Your task to perform on an android device: open chrome privacy settings Image 0: 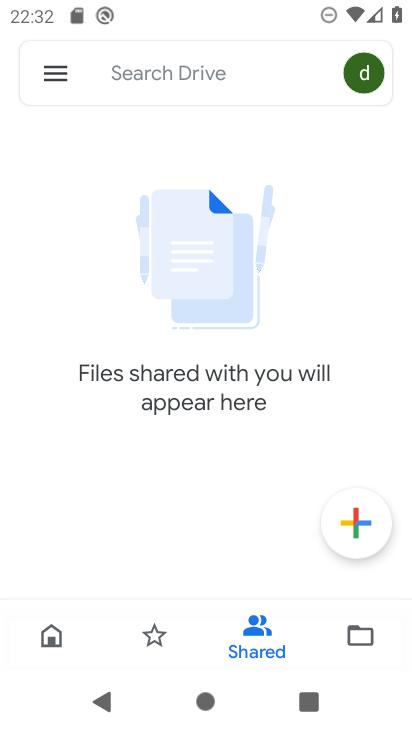
Step 0: press home button
Your task to perform on an android device: open chrome privacy settings Image 1: 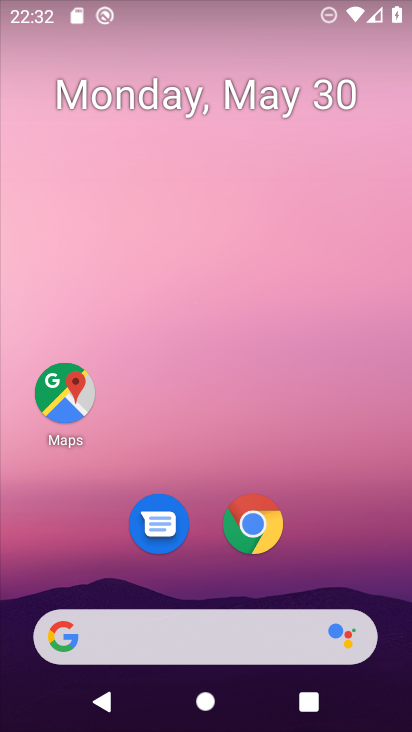
Step 1: click (261, 516)
Your task to perform on an android device: open chrome privacy settings Image 2: 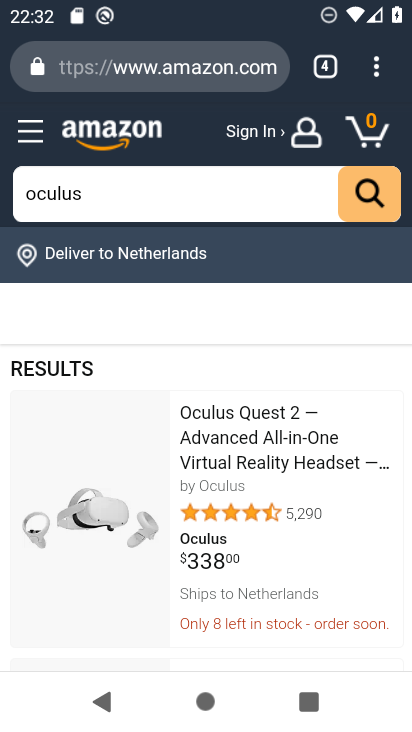
Step 2: click (373, 66)
Your task to perform on an android device: open chrome privacy settings Image 3: 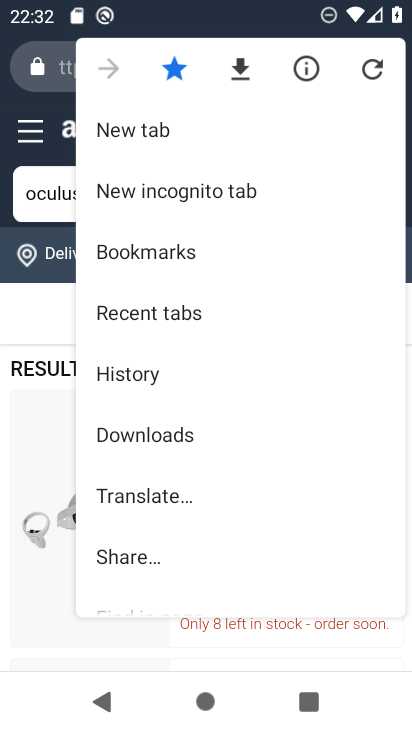
Step 3: drag from (245, 479) to (259, 228)
Your task to perform on an android device: open chrome privacy settings Image 4: 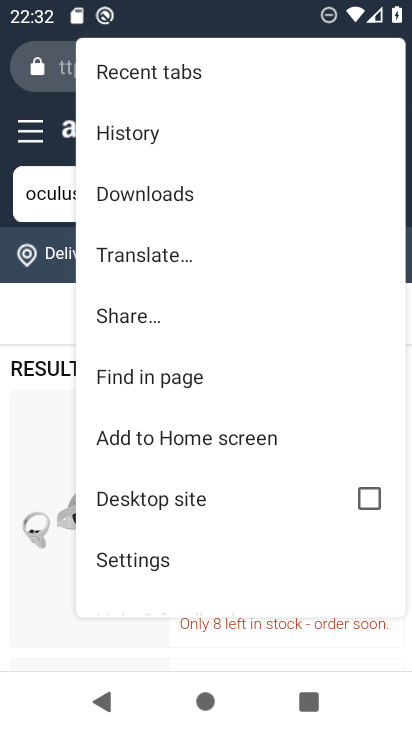
Step 4: click (206, 553)
Your task to perform on an android device: open chrome privacy settings Image 5: 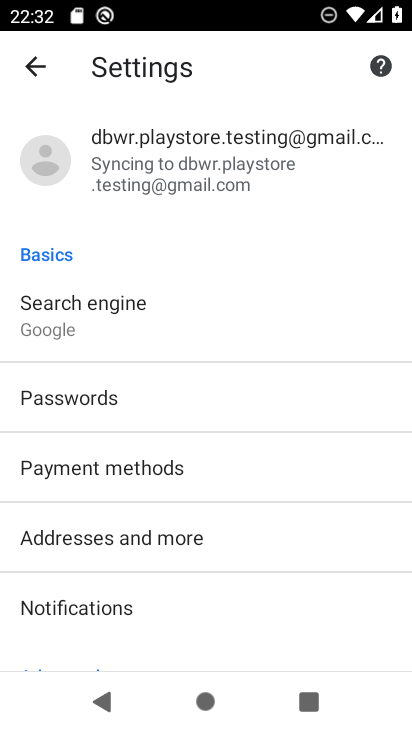
Step 5: drag from (213, 411) to (220, 211)
Your task to perform on an android device: open chrome privacy settings Image 6: 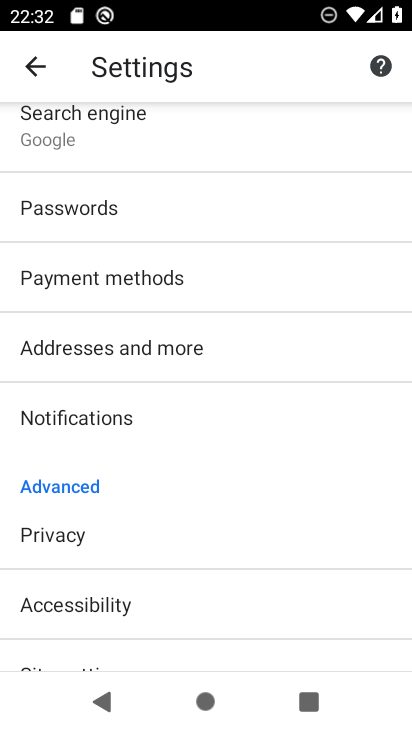
Step 6: click (140, 524)
Your task to perform on an android device: open chrome privacy settings Image 7: 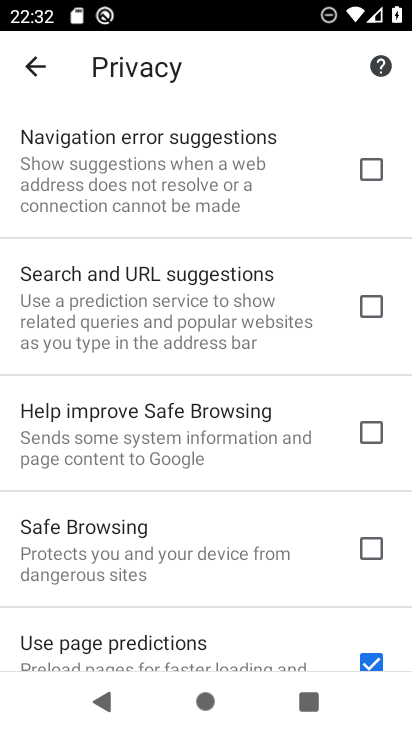
Step 7: task complete